Your task to perform on an android device: empty trash in the gmail app Image 0: 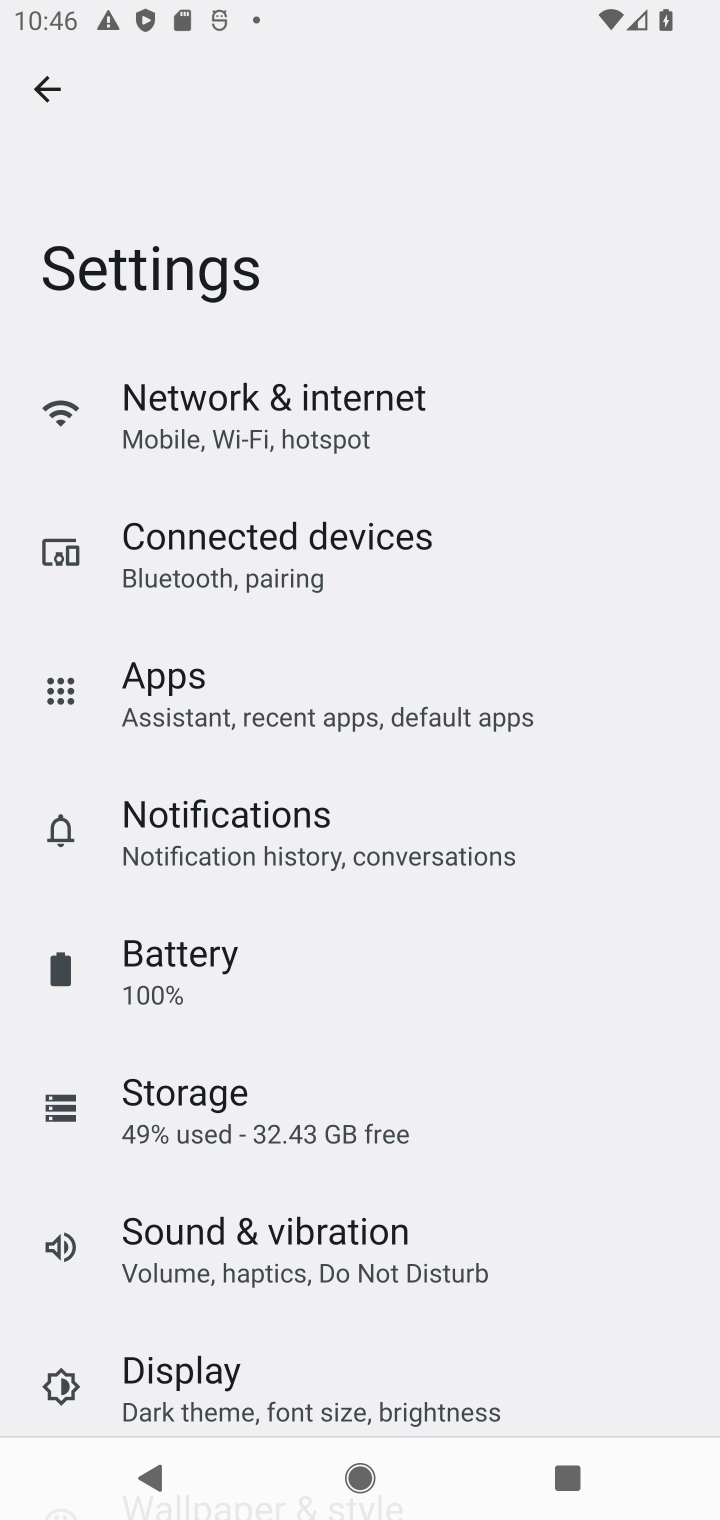
Step 0: press back button
Your task to perform on an android device: empty trash in the gmail app Image 1: 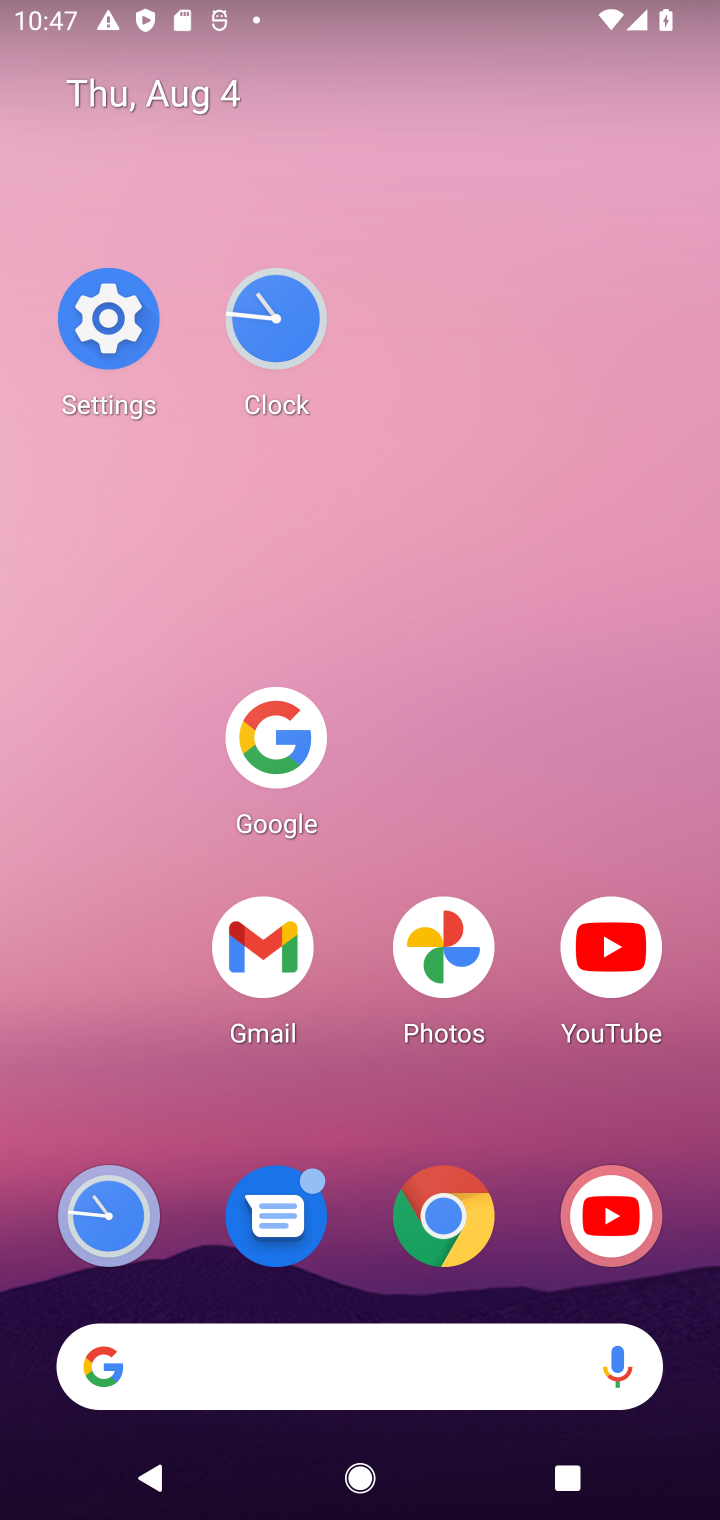
Step 1: click (269, 920)
Your task to perform on an android device: empty trash in the gmail app Image 2: 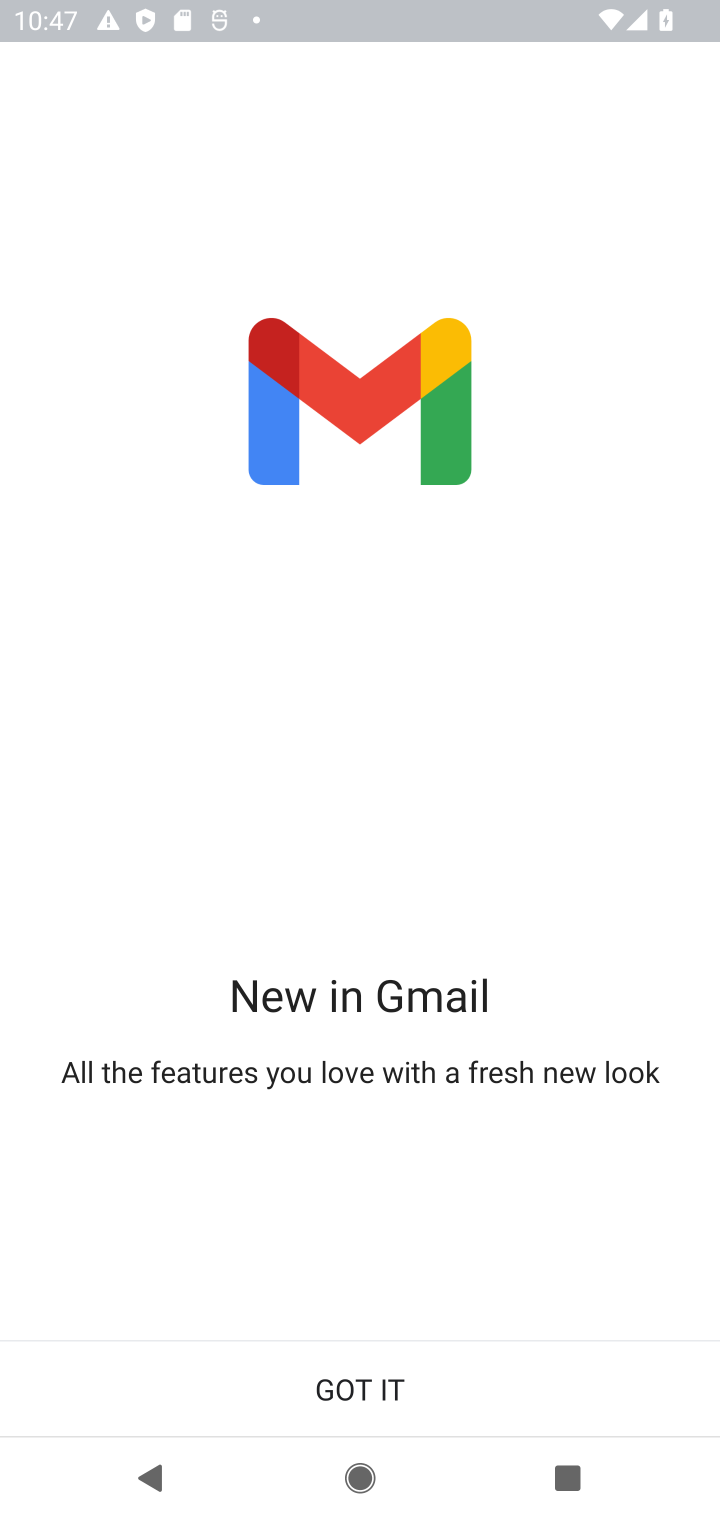
Step 2: click (437, 1360)
Your task to perform on an android device: empty trash in the gmail app Image 3: 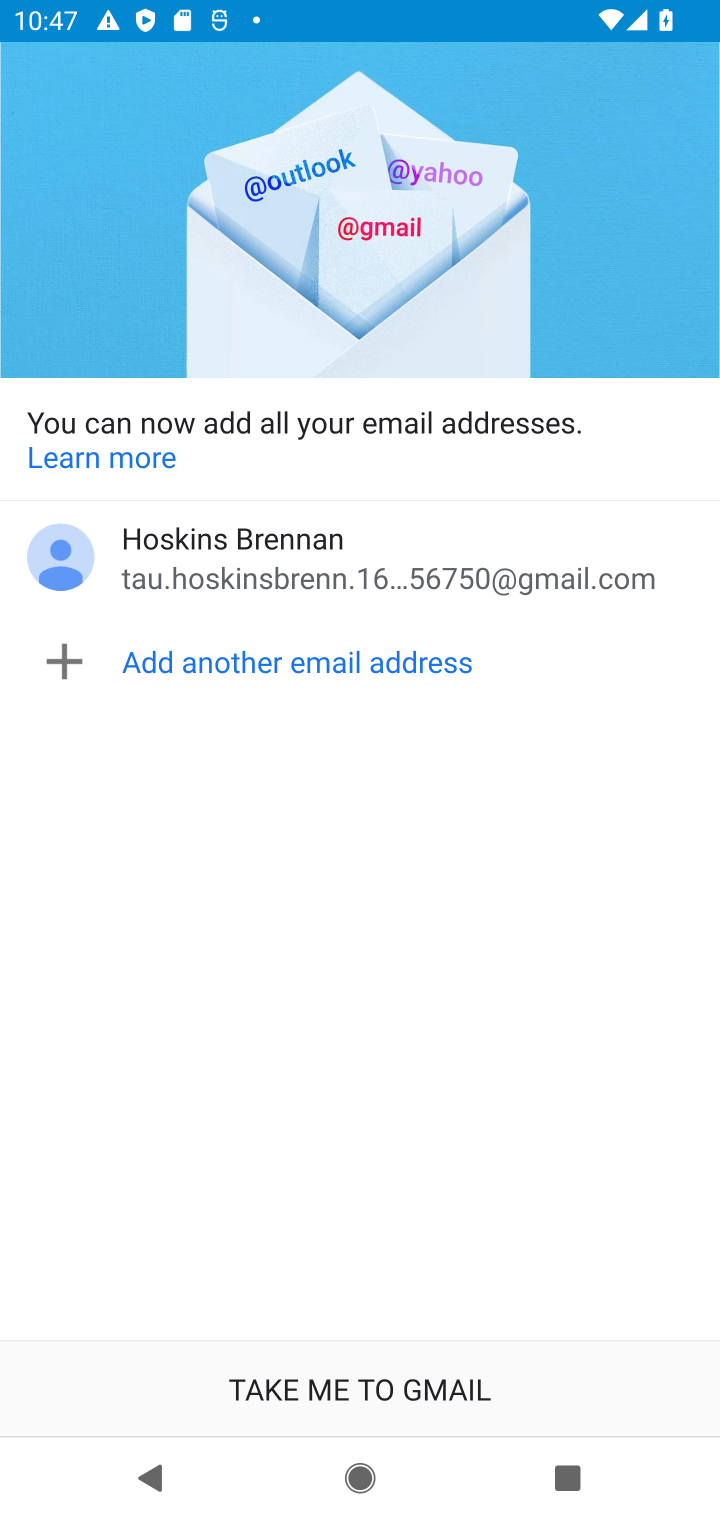
Step 3: click (406, 1376)
Your task to perform on an android device: empty trash in the gmail app Image 4: 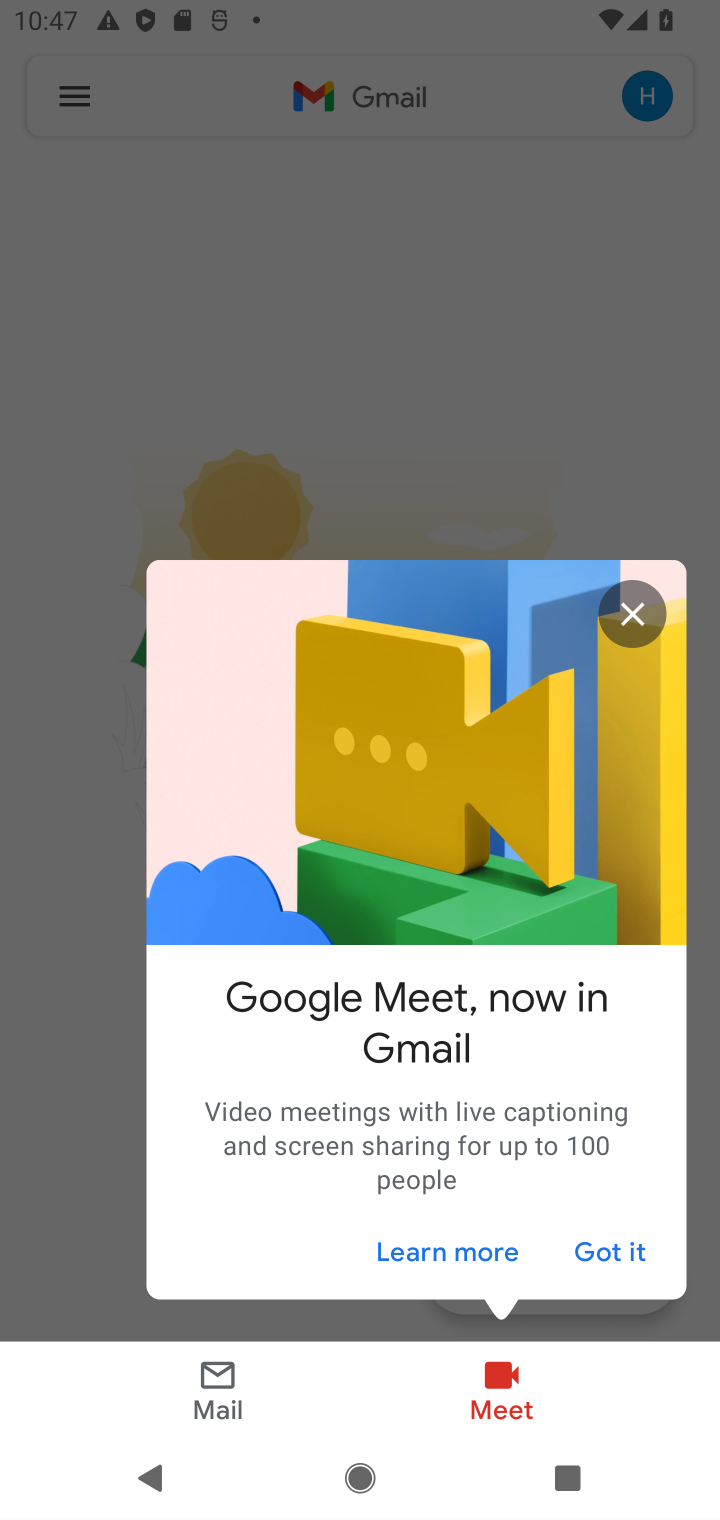
Step 4: click (632, 1248)
Your task to perform on an android device: empty trash in the gmail app Image 5: 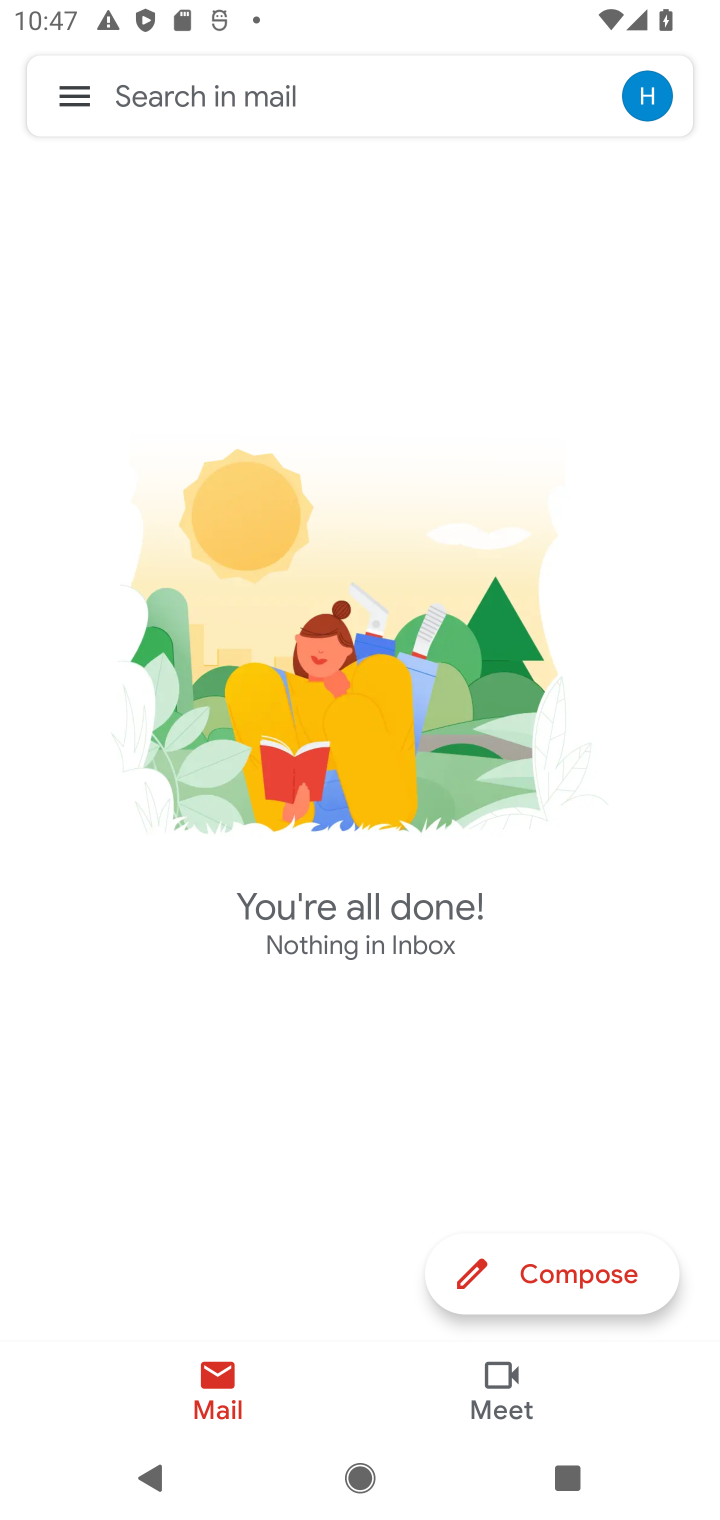
Step 5: click (56, 89)
Your task to perform on an android device: empty trash in the gmail app Image 6: 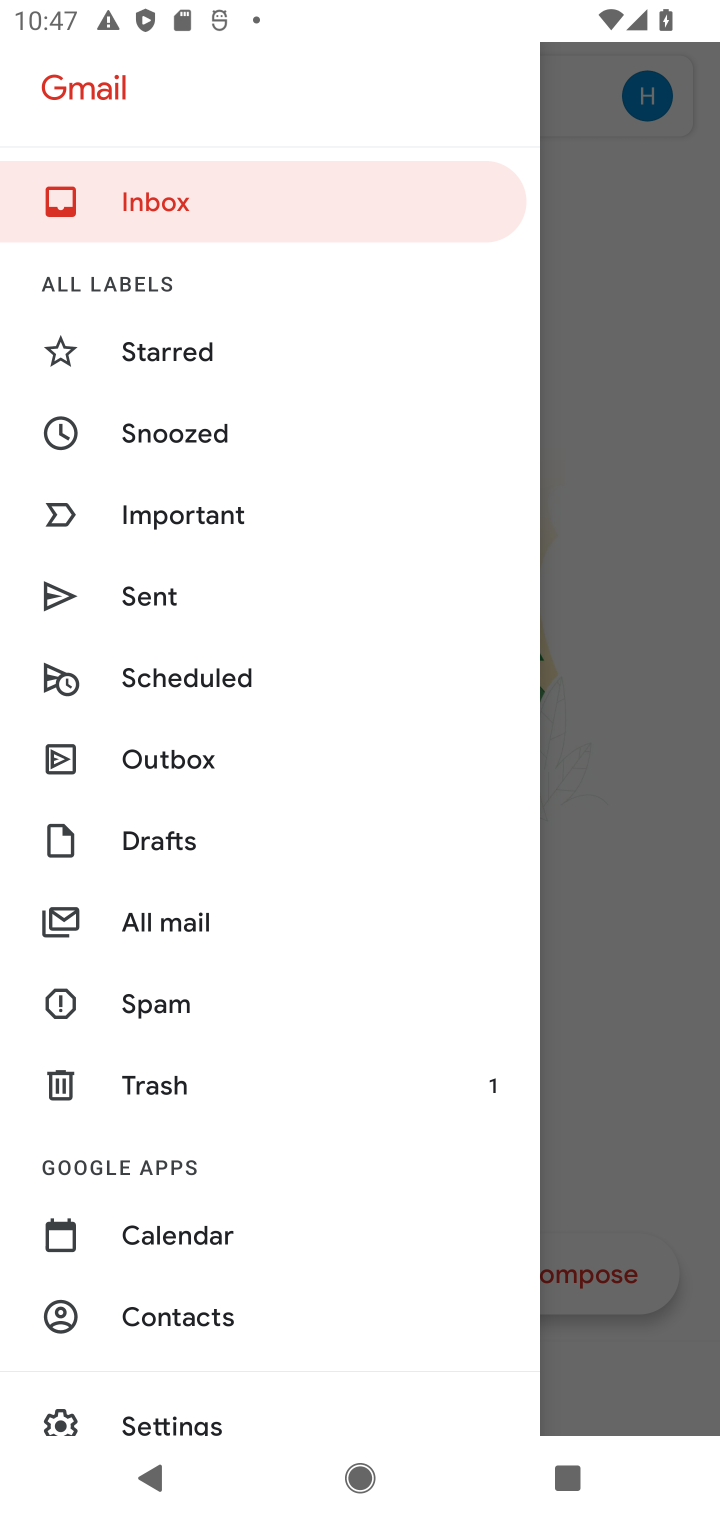
Step 6: click (167, 1092)
Your task to perform on an android device: empty trash in the gmail app Image 7: 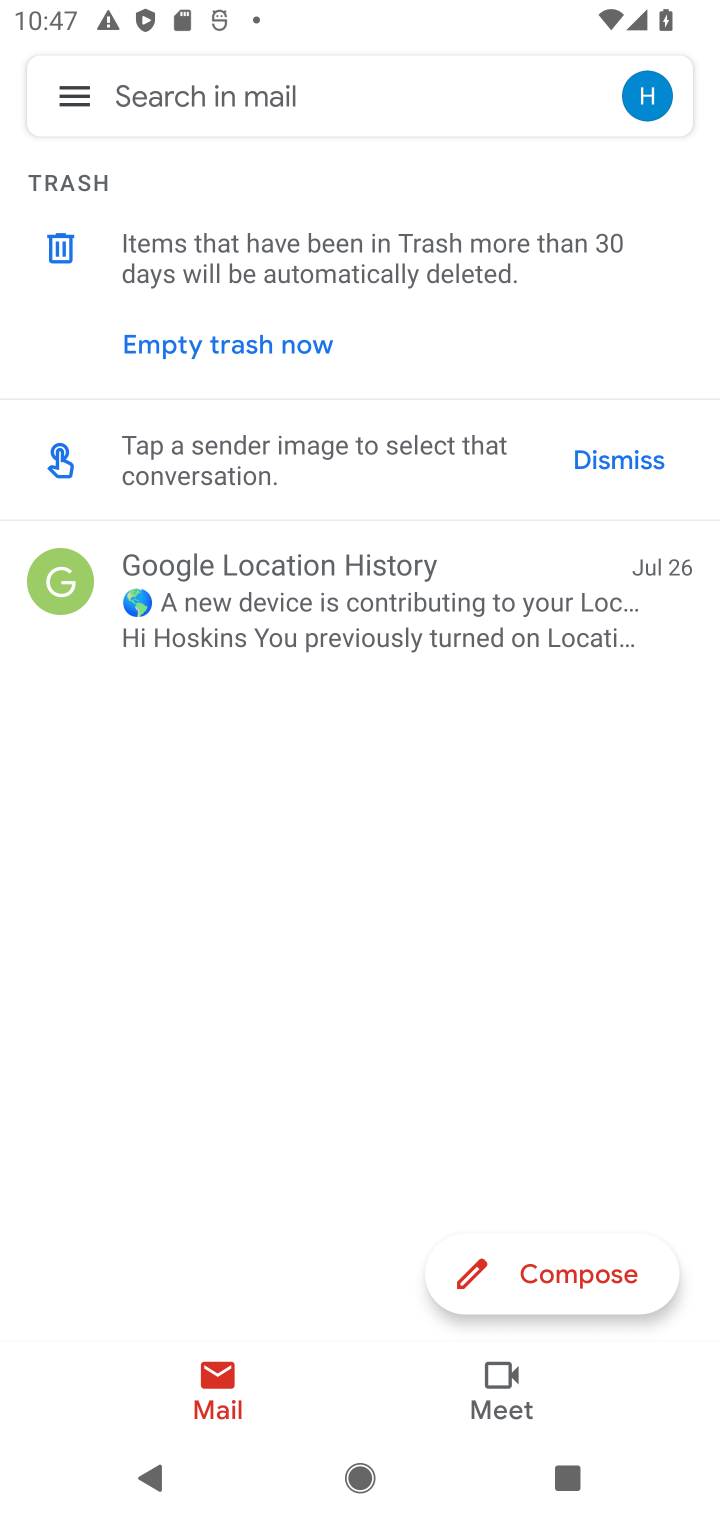
Step 7: click (170, 327)
Your task to perform on an android device: empty trash in the gmail app Image 8: 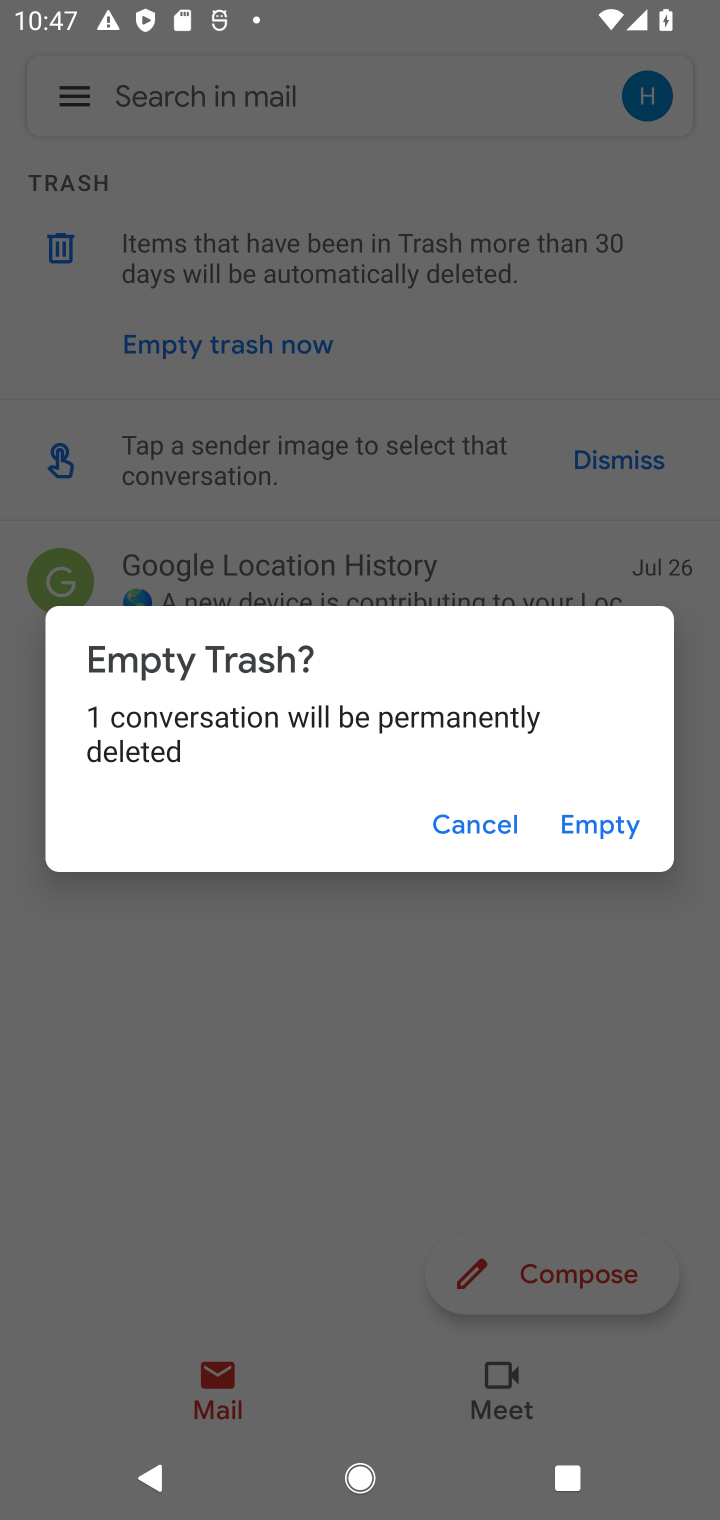
Step 8: click (615, 834)
Your task to perform on an android device: empty trash in the gmail app Image 9: 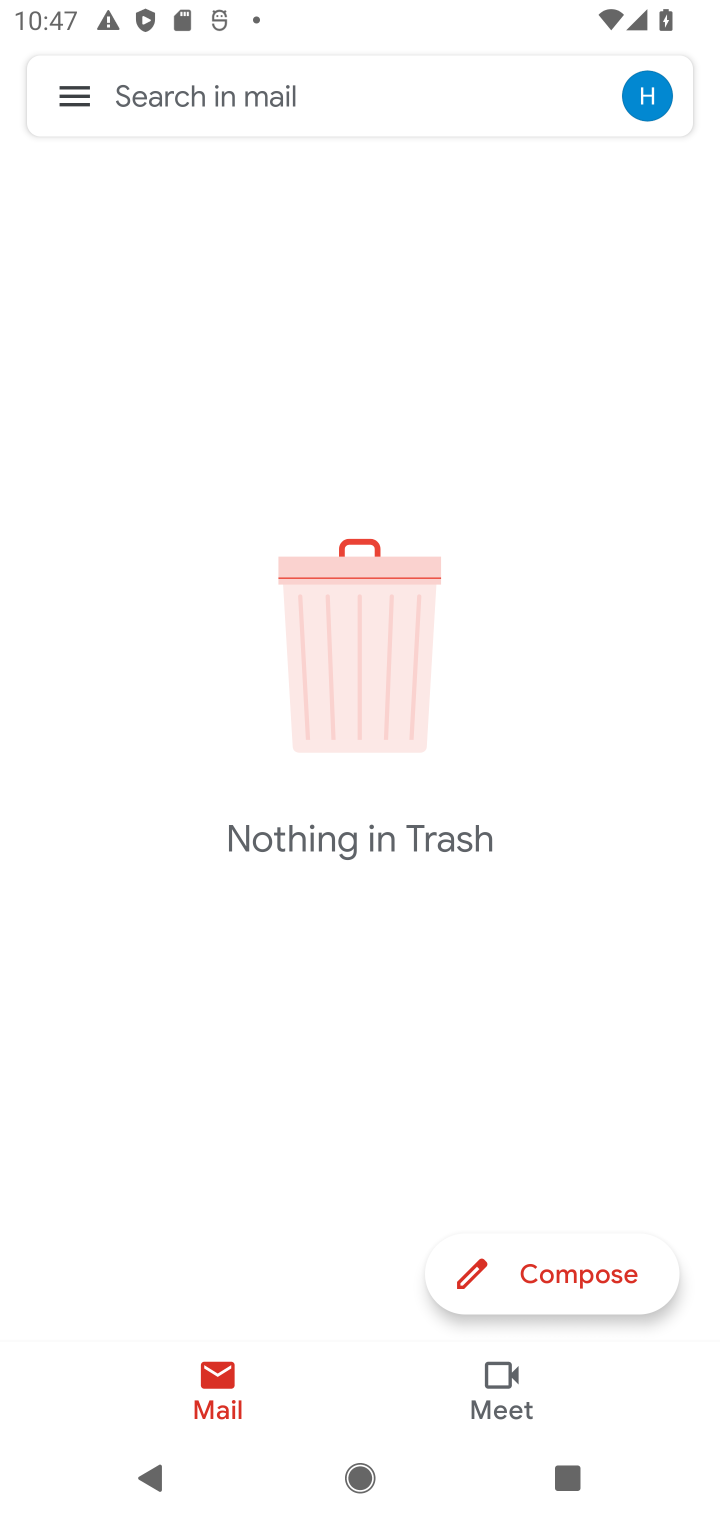
Step 9: task complete